Your task to perform on an android device: Go to privacy settings Image 0: 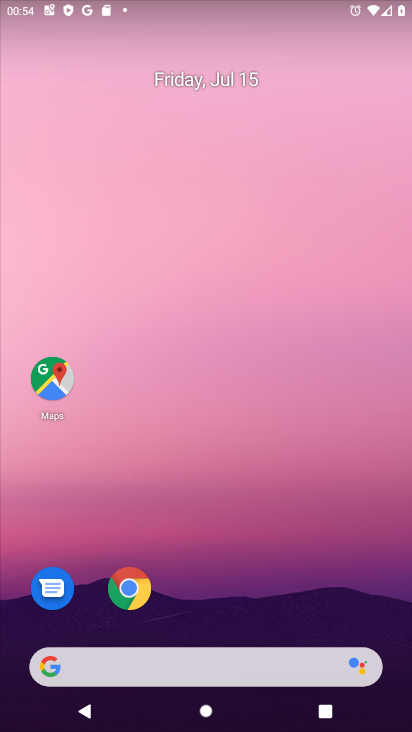
Step 0: press home button
Your task to perform on an android device: Go to privacy settings Image 1: 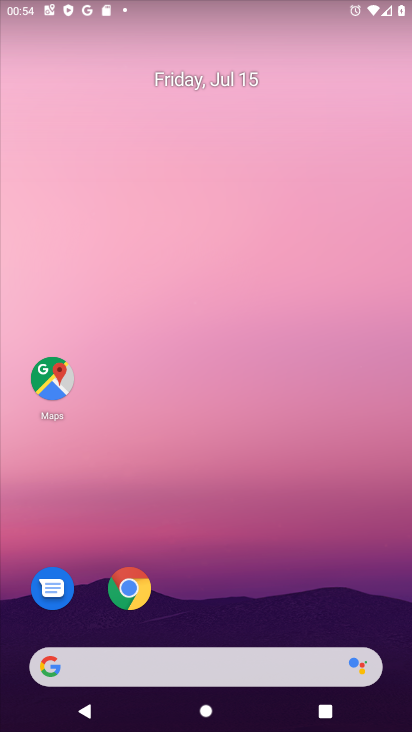
Step 1: drag from (201, 663) to (342, 108)
Your task to perform on an android device: Go to privacy settings Image 2: 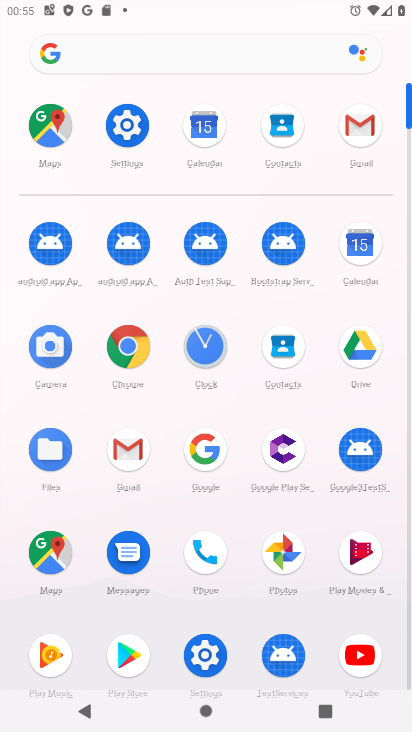
Step 2: click (131, 124)
Your task to perform on an android device: Go to privacy settings Image 3: 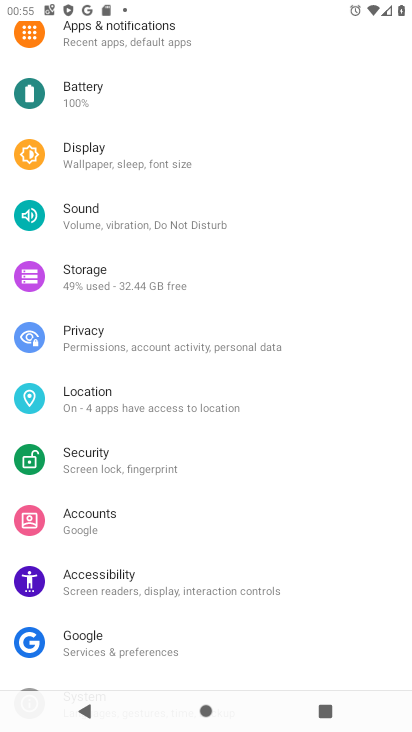
Step 3: click (107, 335)
Your task to perform on an android device: Go to privacy settings Image 4: 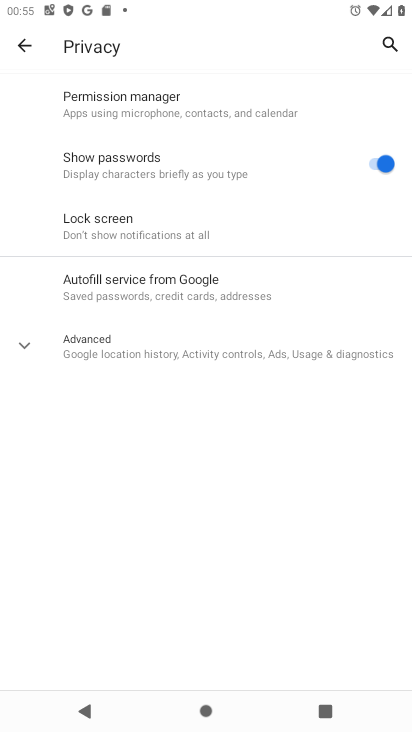
Step 4: task complete